Your task to perform on an android device: Open sound settings Image 0: 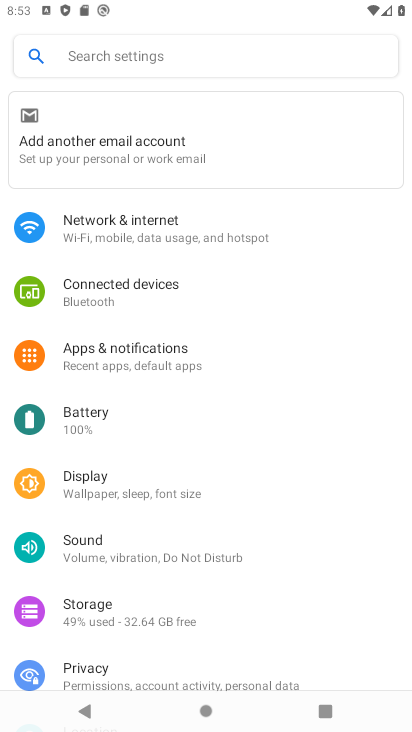
Step 0: click (149, 553)
Your task to perform on an android device: Open sound settings Image 1: 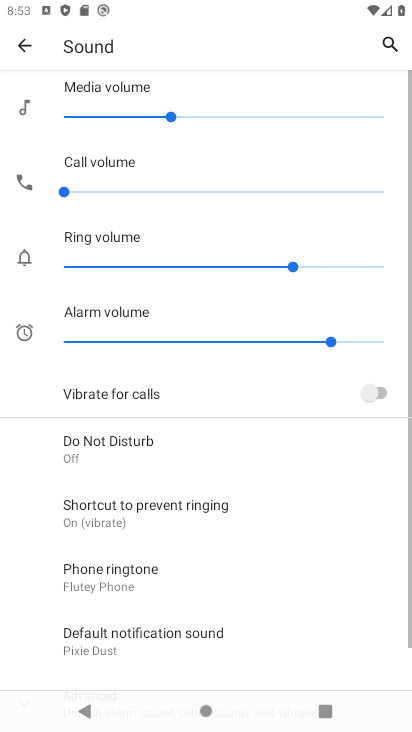
Step 1: task complete